Your task to perform on an android device: turn notification dots off Image 0: 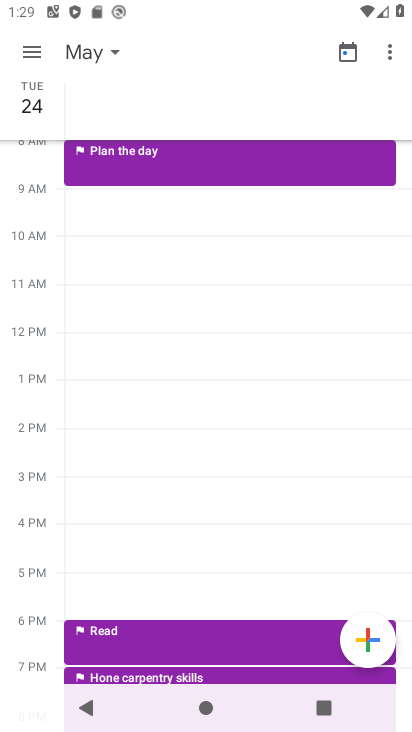
Step 0: press home button
Your task to perform on an android device: turn notification dots off Image 1: 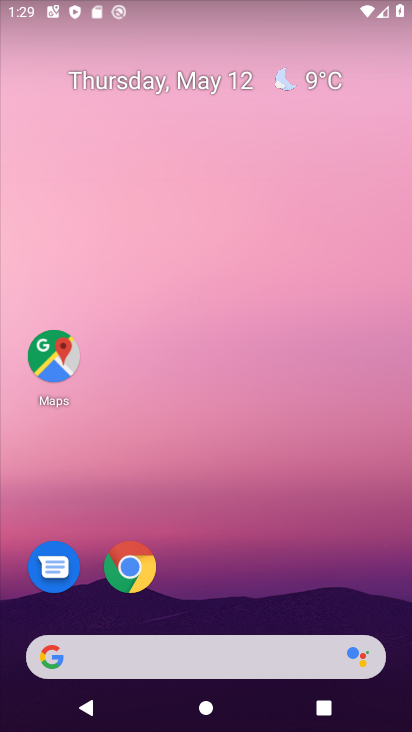
Step 1: drag from (209, 612) to (209, 110)
Your task to perform on an android device: turn notification dots off Image 2: 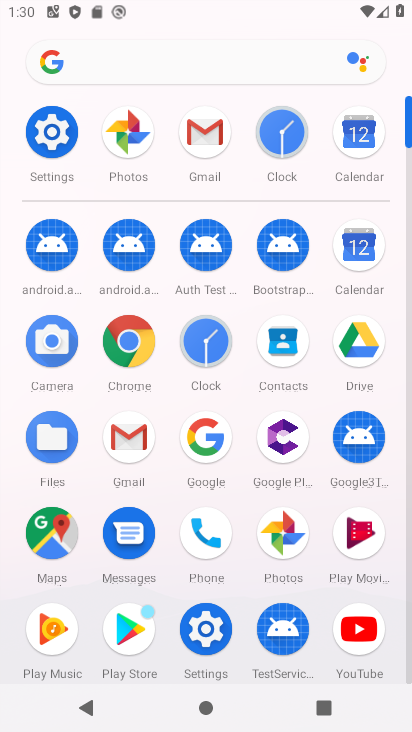
Step 2: click (50, 126)
Your task to perform on an android device: turn notification dots off Image 3: 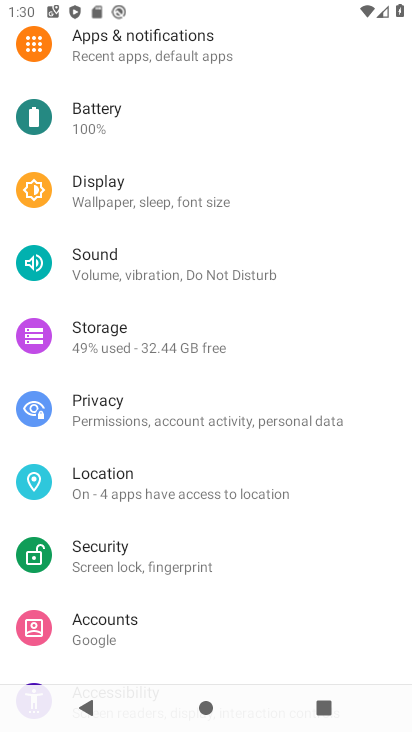
Step 3: click (144, 46)
Your task to perform on an android device: turn notification dots off Image 4: 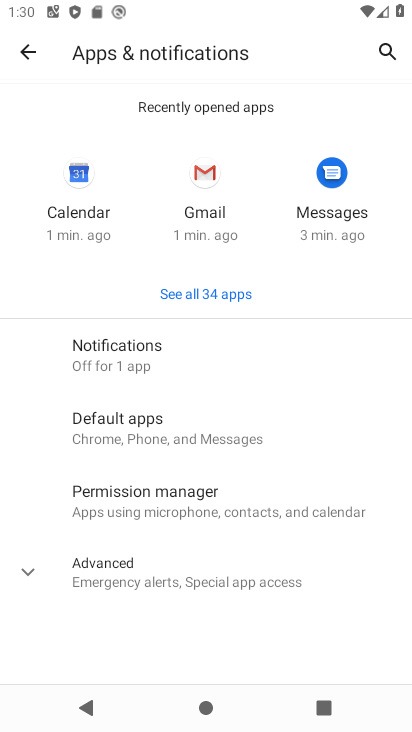
Step 4: click (155, 355)
Your task to perform on an android device: turn notification dots off Image 5: 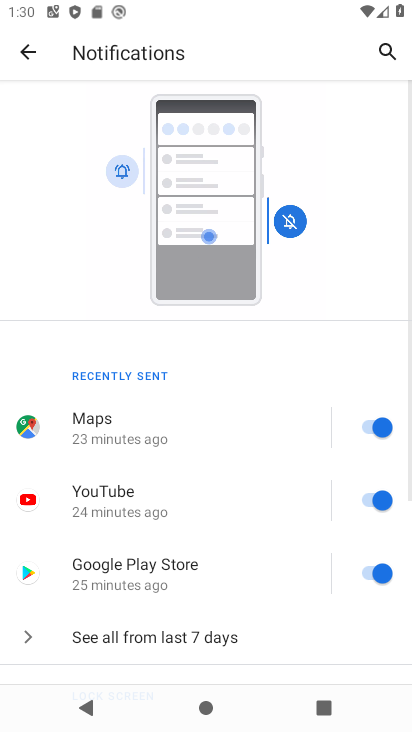
Step 5: drag from (232, 629) to (231, 132)
Your task to perform on an android device: turn notification dots off Image 6: 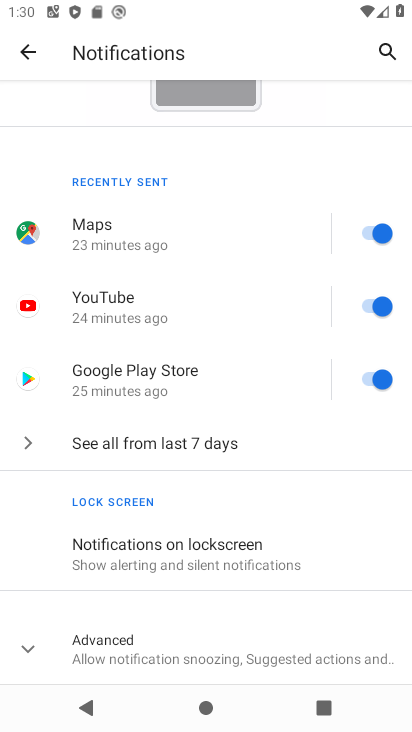
Step 6: click (144, 642)
Your task to perform on an android device: turn notification dots off Image 7: 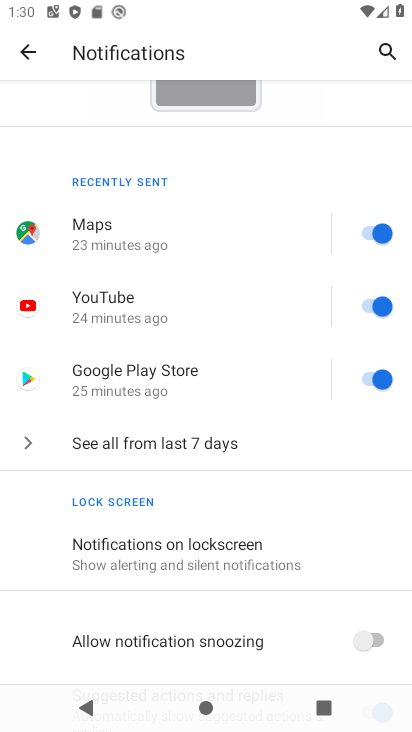
Step 7: drag from (202, 612) to (193, 130)
Your task to perform on an android device: turn notification dots off Image 8: 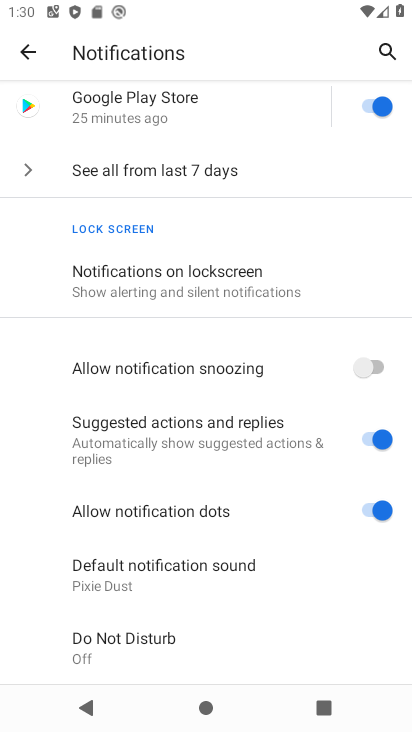
Step 8: click (361, 505)
Your task to perform on an android device: turn notification dots off Image 9: 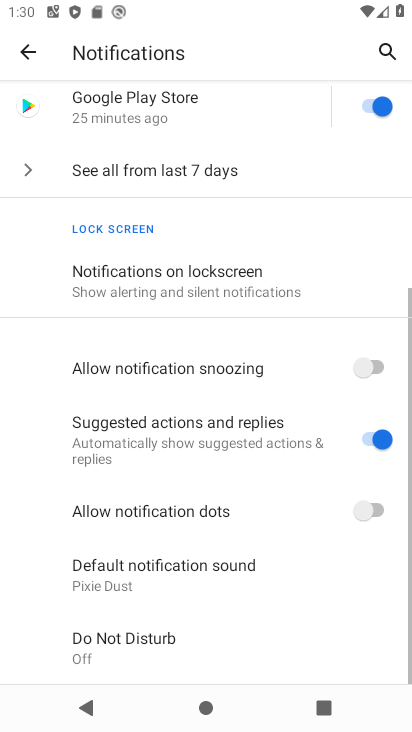
Step 9: task complete